Your task to perform on an android device: View the shopping cart on bestbuy.com. Add razer deathadder to the cart on bestbuy.com Image 0: 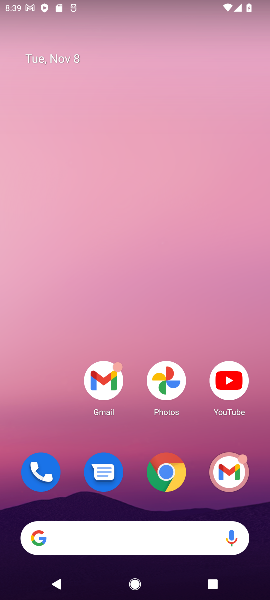
Step 0: click (165, 473)
Your task to perform on an android device: View the shopping cart on bestbuy.com. Add razer deathadder to the cart on bestbuy.com Image 1: 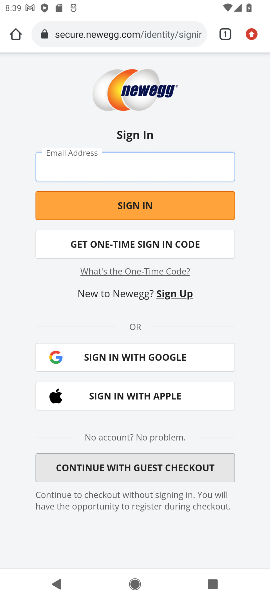
Step 1: click (144, 34)
Your task to perform on an android device: View the shopping cart on bestbuy.com. Add razer deathadder to the cart on bestbuy.com Image 2: 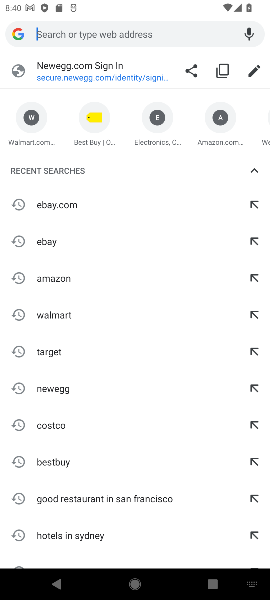
Step 2: click (47, 458)
Your task to perform on an android device: View the shopping cart on bestbuy.com. Add razer deathadder to the cart on bestbuy.com Image 3: 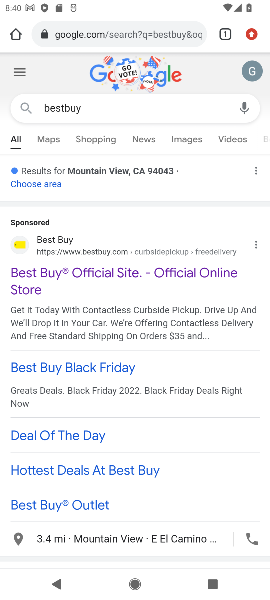
Step 3: click (43, 281)
Your task to perform on an android device: View the shopping cart on bestbuy.com. Add razer deathadder to the cart on bestbuy.com Image 4: 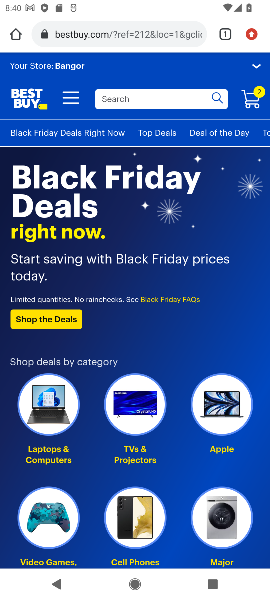
Step 4: click (179, 96)
Your task to perform on an android device: View the shopping cart on bestbuy.com. Add razer deathadder to the cart on bestbuy.com Image 5: 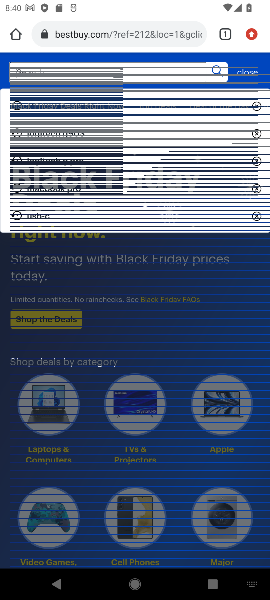
Step 5: type "razer deathadder "
Your task to perform on an android device: View the shopping cart on bestbuy.com. Add razer deathadder to the cart on bestbuy.com Image 6: 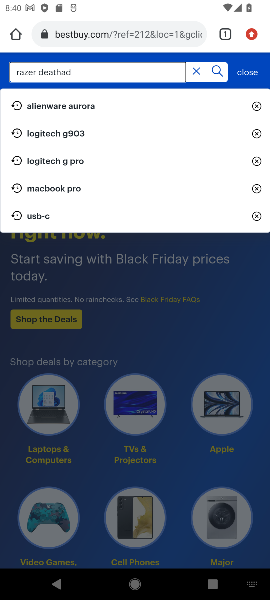
Step 6: press enter
Your task to perform on an android device: View the shopping cart on bestbuy.com. Add razer deathadder to the cart on bestbuy.com Image 7: 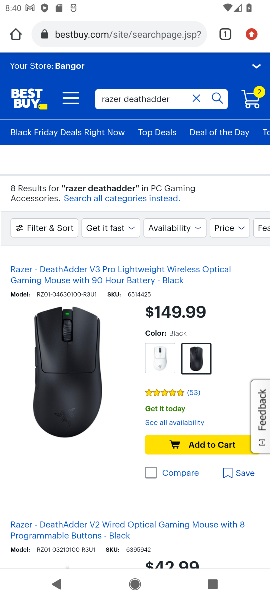
Step 7: click (212, 444)
Your task to perform on an android device: View the shopping cart on bestbuy.com. Add razer deathadder to the cart on bestbuy.com Image 8: 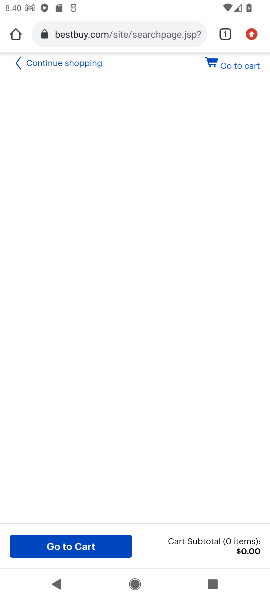
Step 8: click (253, 101)
Your task to perform on an android device: View the shopping cart on bestbuy.com. Add razer deathadder to the cart on bestbuy.com Image 9: 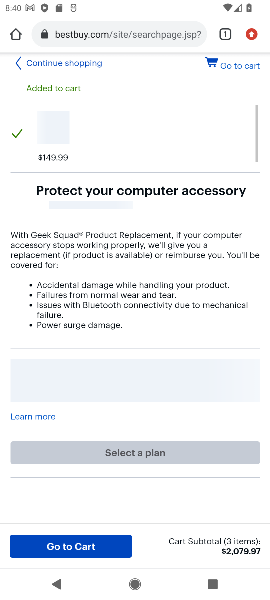
Step 9: click (246, 67)
Your task to perform on an android device: View the shopping cart on bestbuy.com. Add razer deathadder to the cart on bestbuy.com Image 10: 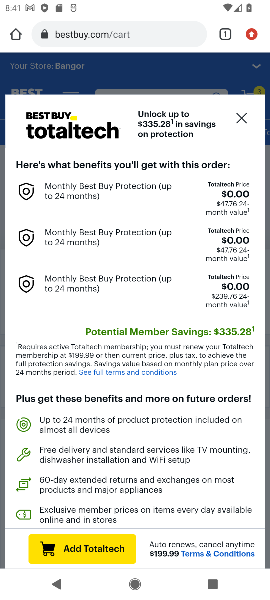
Step 10: click (241, 114)
Your task to perform on an android device: View the shopping cart on bestbuy.com. Add razer deathadder to the cart on bestbuy.com Image 11: 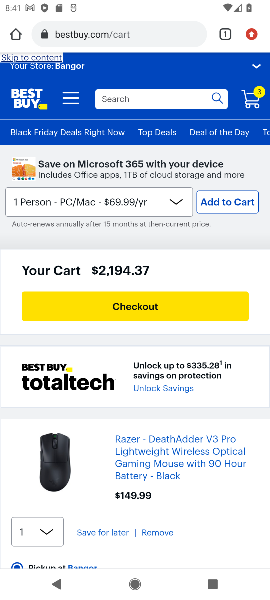
Step 11: drag from (86, 506) to (267, 140)
Your task to perform on an android device: View the shopping cart on bestbuy.com. Add razer deathadder to the cart on bestbuy.com Image 12: 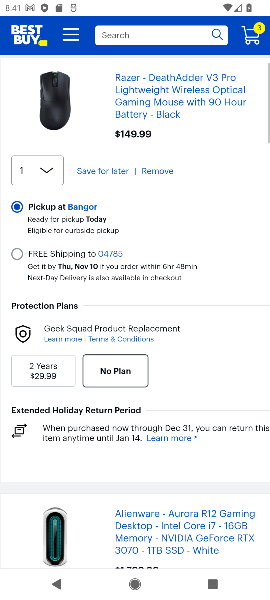
Step 12: drag from (108, 486) to (240, 133)
Your task to perform on an android device: View the shopping cart on bestbuy.com. Add razer deathadder to the cart on bestbuy.com Image 13: 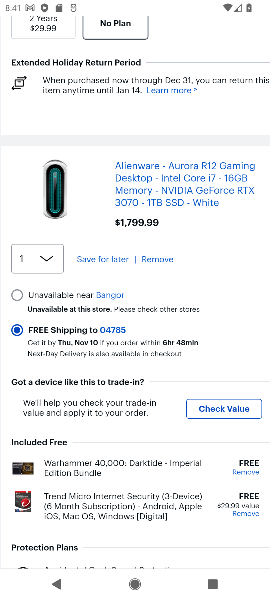
Step 13: click (160, 254)
Your task to perform on an android device: View the shopping cart on bestbuy.com. Add razer deathadder to the cart on bestbuy.com Image 14: 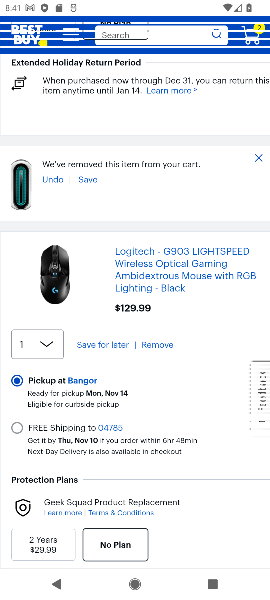
Step 14: drag from (188, 304) to (229, 319)
Your task to perform on an android device: View the shopping cart on bestbuy.com. Add razer deathadder to the cart on bestbuy.com Image 15: 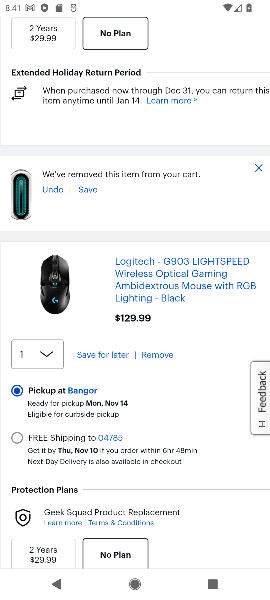
Step 15: click (155, 354)
Your task to perform on an android device: View the shopping cart on bestbuy.com. Add razer deathadder to the cart on bestbuy.com Image 16: 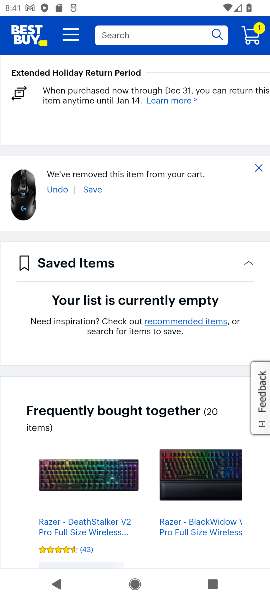
Step 16: task complete